Your task to perform on an android device: turn off picture-in-picture Image 0: 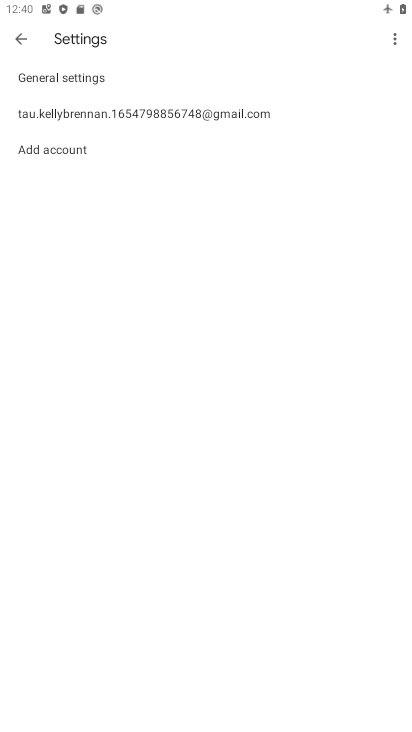
Step 0: press home button
Your task to perform on an android device: turn off picture-in-picture Image 1: 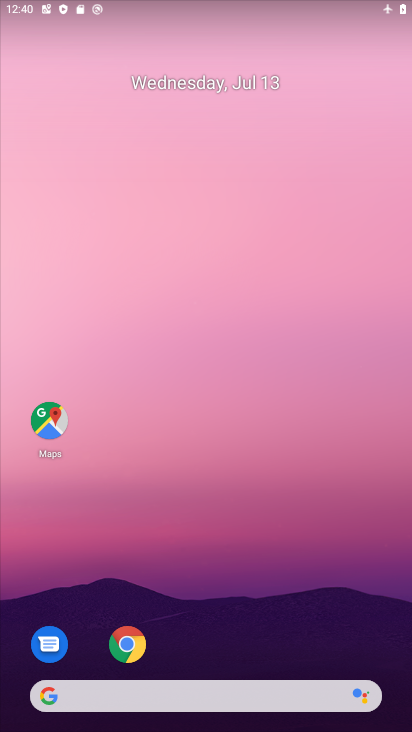
Step 1: click (130, 642)
Your task to perform on an android device: turn off picture-in-picture Image 2: 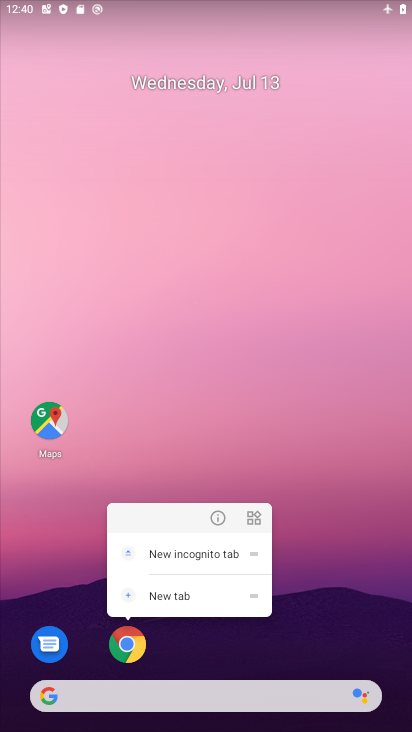
Step 2: click (221, 519)
Your task to perform on an android device: turn off picture-in-picture Image 3: 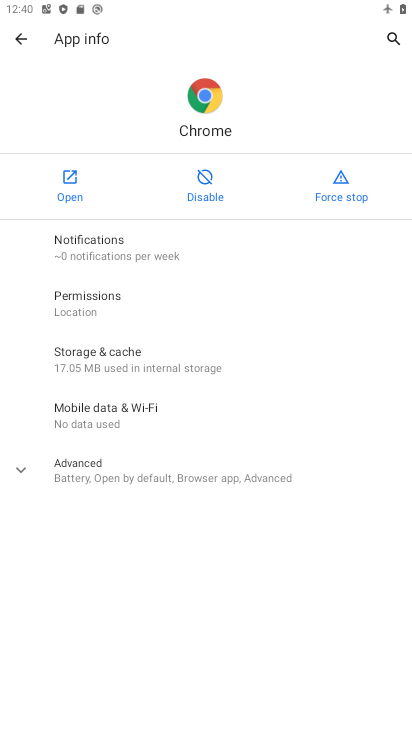
Step 3: click (188, 491)
Your task to perform on an android device: turn off picture-in-picture Image 4: 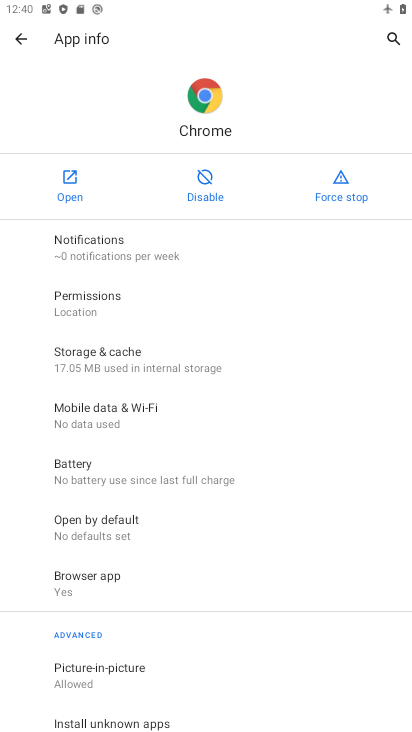
Step 4: drag from (325, 679) to (318, 195)
Your task to perform on an android device: turn off picture-in-picture Image 5: 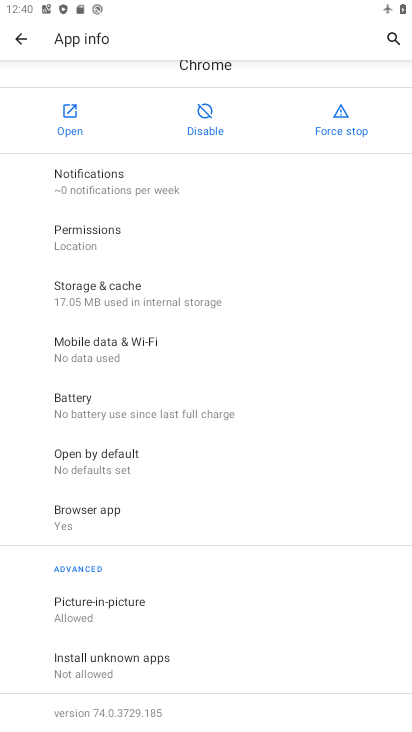
Step 5: click (118, 608)
Your task to perform on an android device: turn off picture-in-picture Image 6: 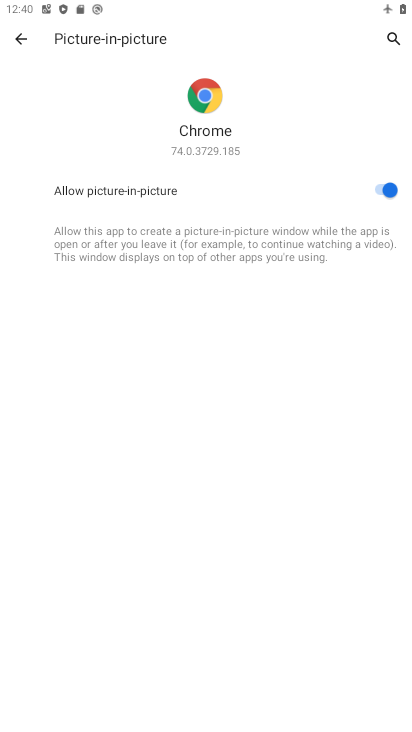
Step 6: click (385, 186)
Your task to perform on an android device: turn off picture-in-picture Image 7: 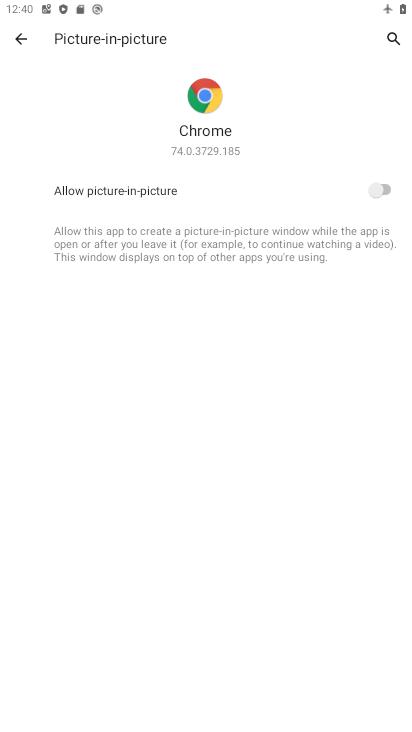
Step 7: task complete